Your task to perform on an android device: set an alarm Image 0: 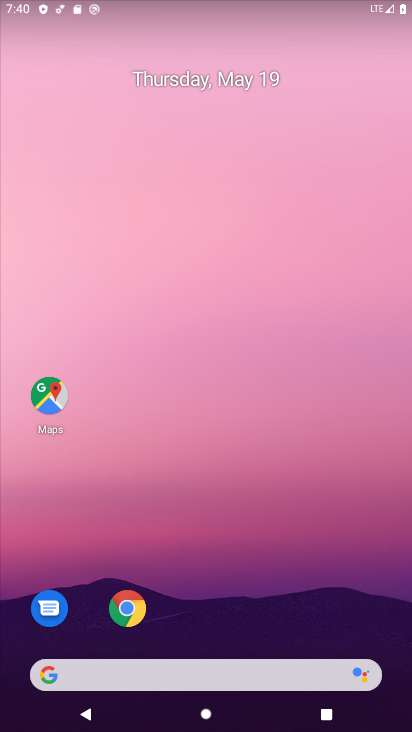
Step 0: click (390, 435)
Your task to perform on an android device: set an alarm Image 1: 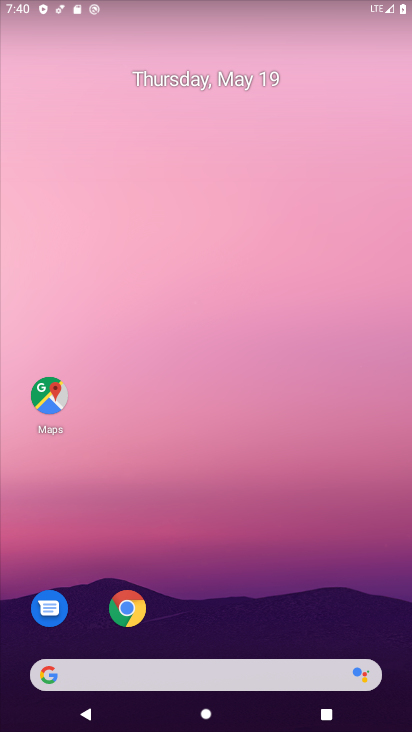
Step 1: drag from (306, 262) to (308, 175)
Your task to perform on an android device: set an alarm Image 2: 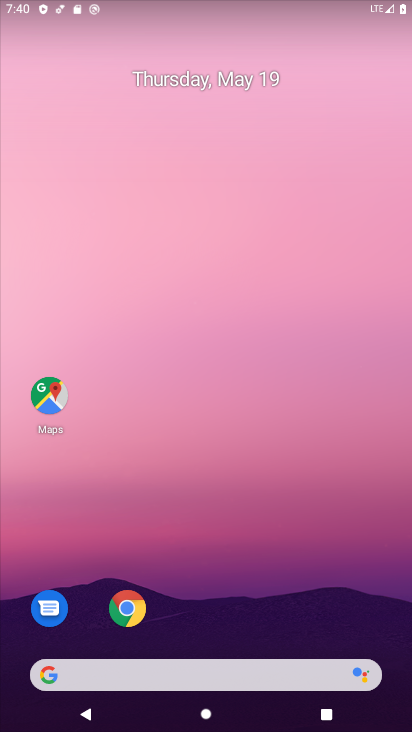
Step 2: drag from (396, 661) to (368, 110)
Your task to perform on an android device: set an alarm Image 3: 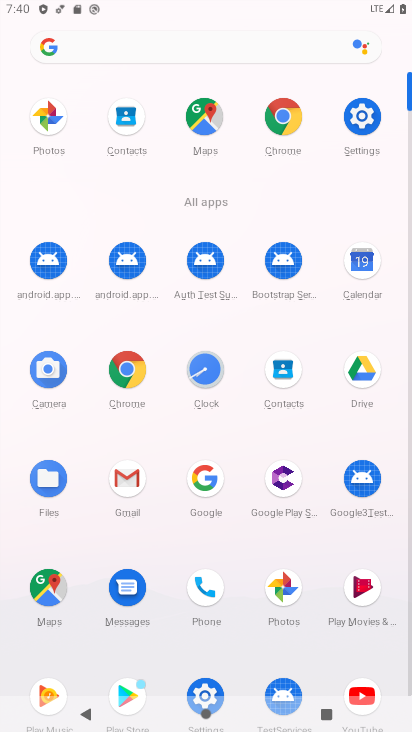
Step 3: click (199, 378)
Your task to perform on an android device: set an alarm Image 4: 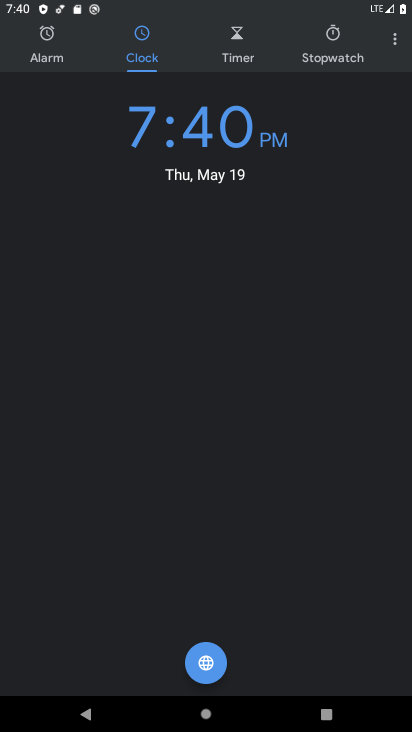
Step 4: click (48, 41)
Your task to perform on an android device: set an alarm Image 5: 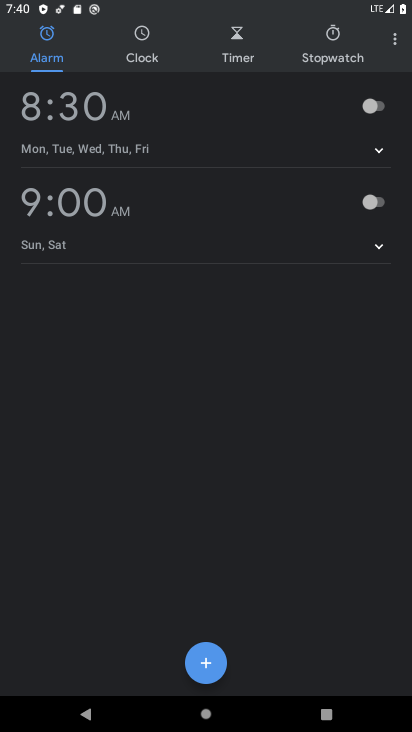
Step 5: click (382, 102)
Your task to perform on an android device: set an alarm Image 6: 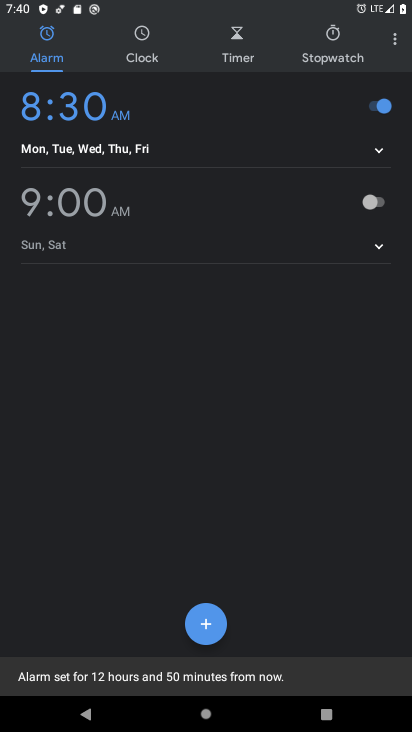
Step 6: task complete